Your task to perform on an android device: check android version Image 0: 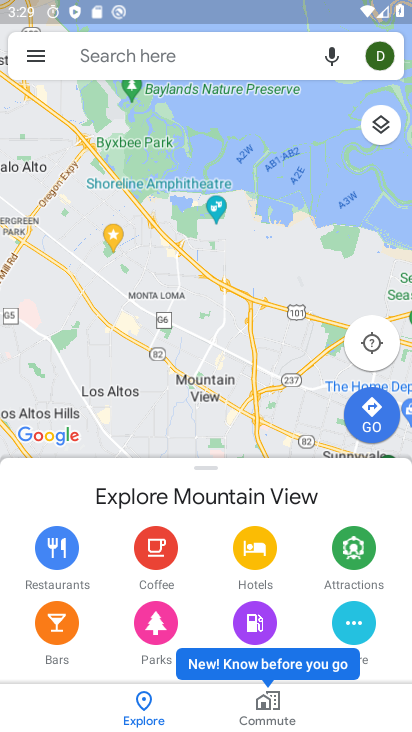
Step 0: press home button
Your task to perform on an android device: check android version Image 1: 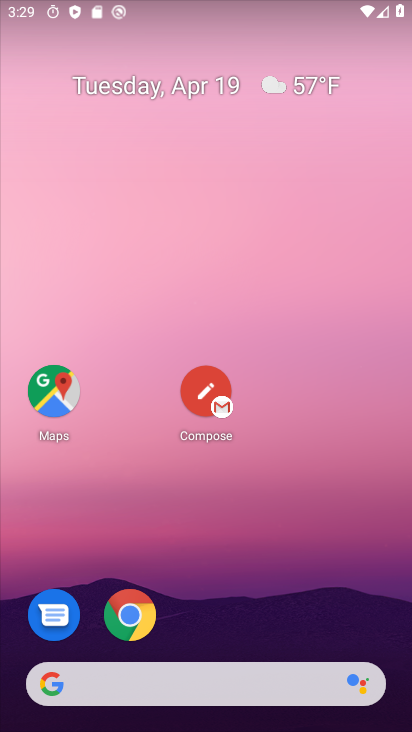
Step 1: drag from (267, 631) to (312, 204)
Your task to perform on an android device: check android version Image 2: 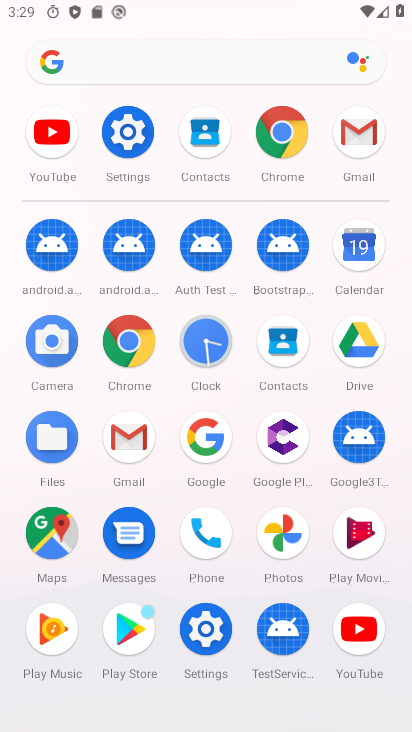
Step 2: click (210, 637)
Your task to perform on an android device: check android version Image 3: 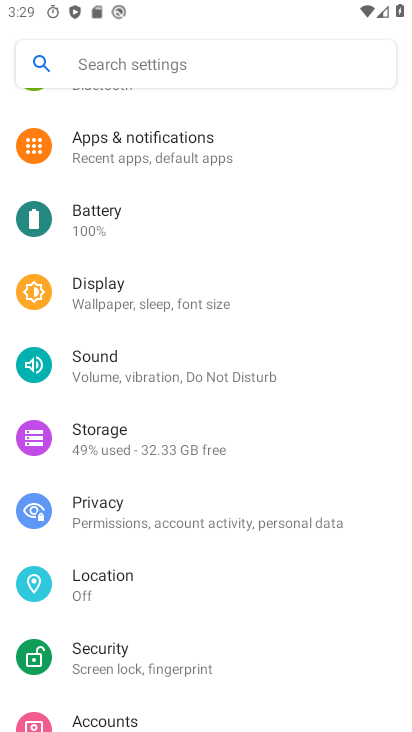
Step 3: drag from (268, 673) to (293, 149)
Your task to perform on an android device: check android version Image 4: 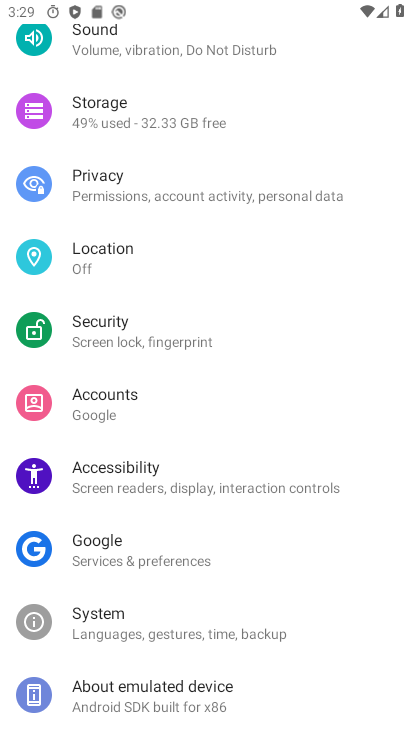
Step 4: click (129, 702)
Your task to perform on an android device: check android version Image 5: 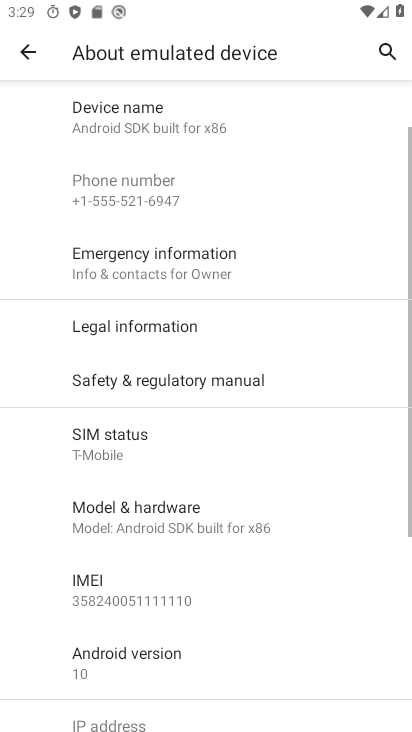
Step 5: drag from (252, 666) to (332, 290)
Your task to perform on an android device: check android version Image 6: 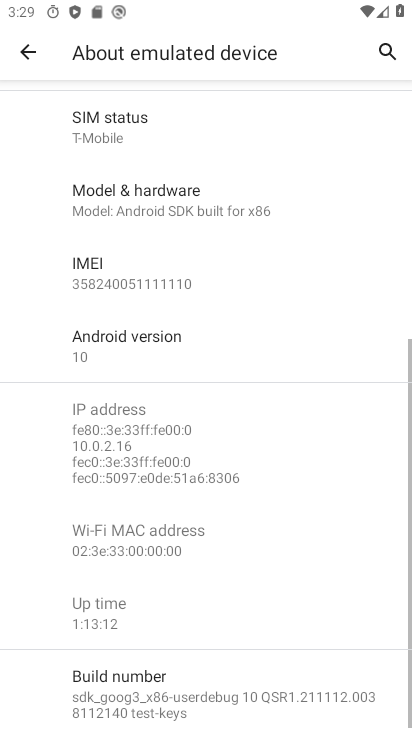
Step 6: click (206, 355)
Your task to perform on an android device: check android version Image 7: 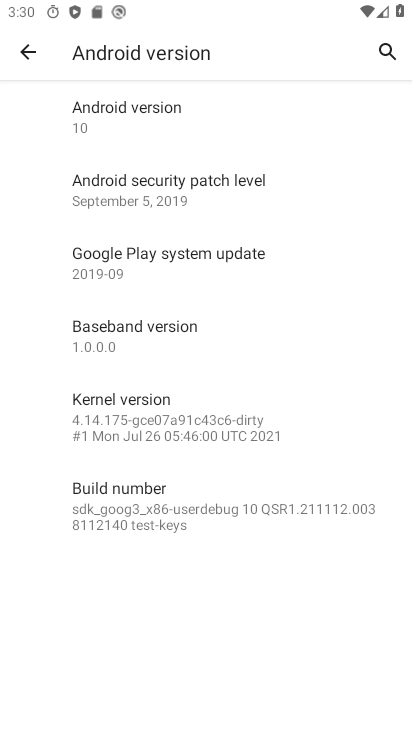
Step 7: task complete